Your task to perform on an android device: turn on sleep mode Image 0: 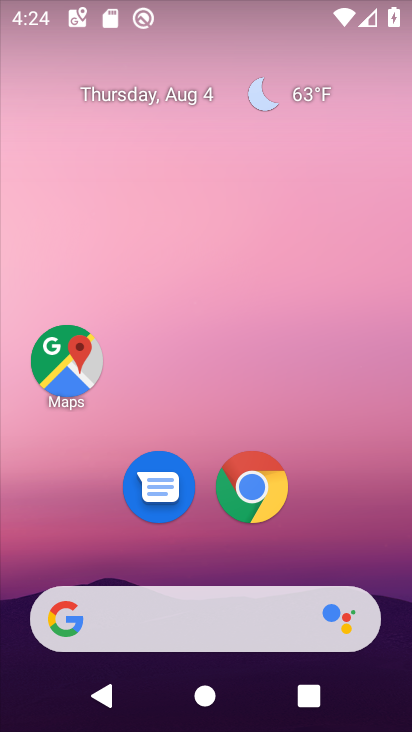
Step 0: drag from (195, 577) to (255, 33)
Your task to perform on an android device: turn on sleep mode Image 1: 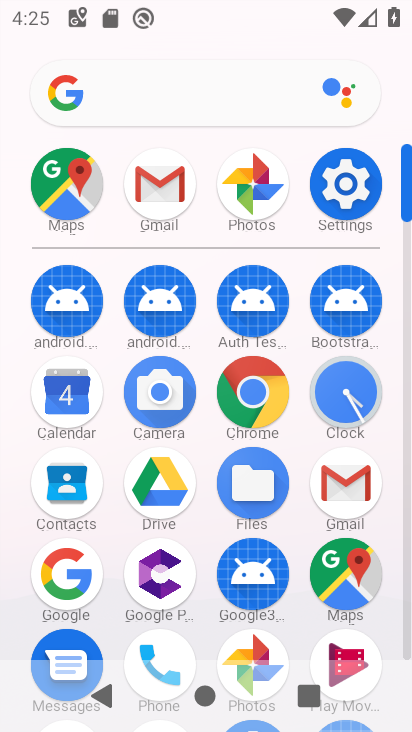
Step 1: click (347, 183)
Your task to perform on an android device: turn on sleep mode Image 2: 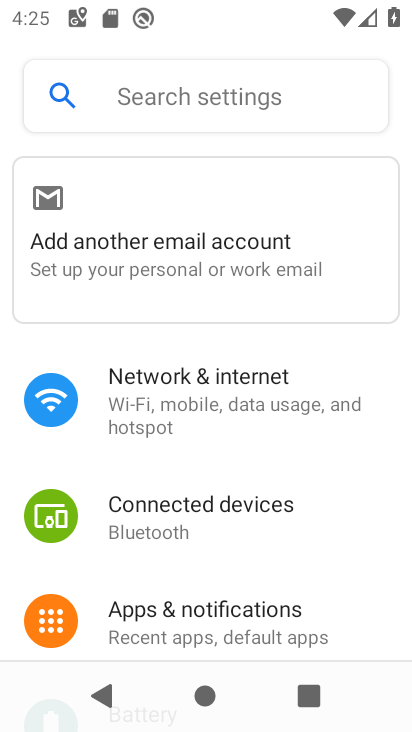
Step 2: click (201, 86)
Your task to perform on an android device: turn on sleep mode Image 3: 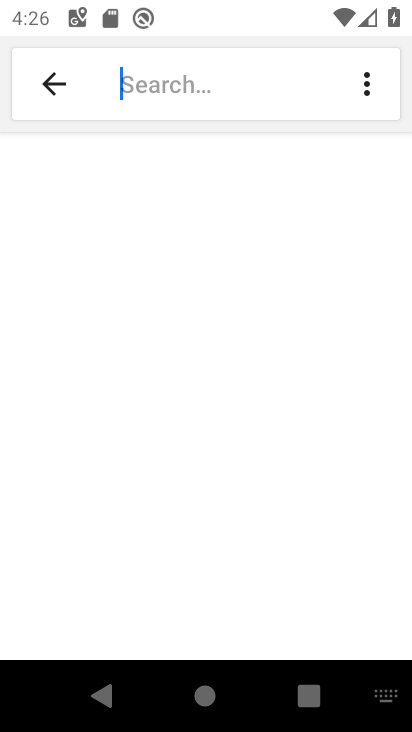
Step 3: type "sleep mode"
Your task to perform on an android device: turn on sleep mode Image 4: 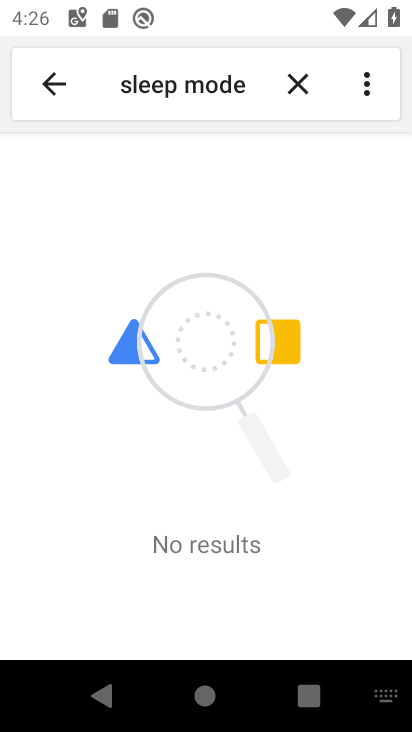
Step 4: task complete